Your task to perform on an android device: clear history in the chrome app Image 0: 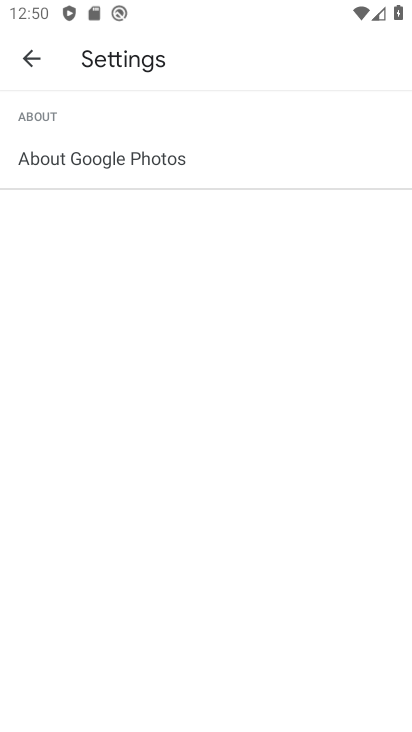
Step 0: press back button
Your task to perform on an android device: clear history in the chrome app Image 1: 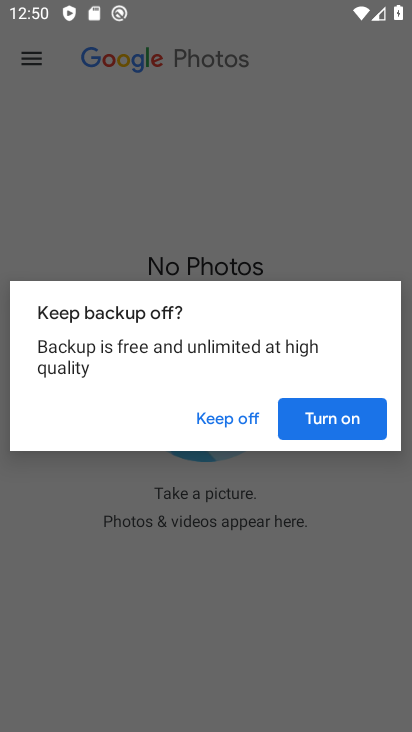
Step 1: press home button
Your task to perform on an android device: clear history in the chrome app Image 2: 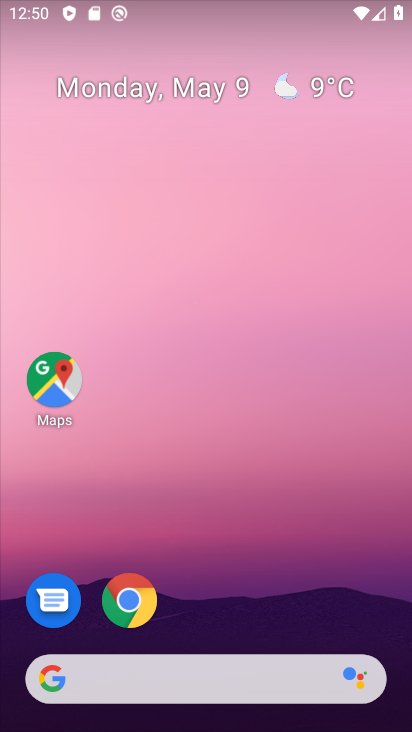
Step 2: drag from (208, 655) to (374, 103)
Your task to perform on an android device: clear history in the chrome app Image 3: 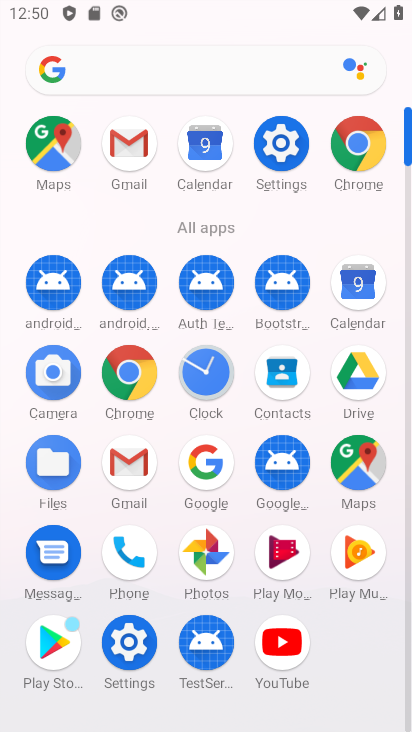
Step 3: click (142, 380)
Your task to perform on an android device: clear history in the chrome app Image 4: 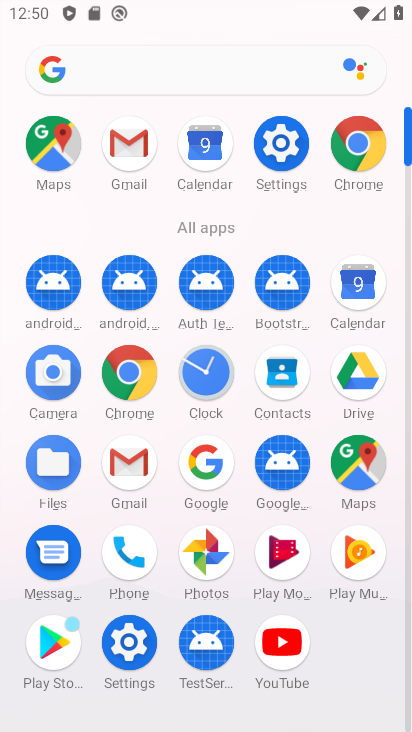
Step 4: click (142, 380)
Your task to perform on an android device: clear history in the chrome app Image 5: 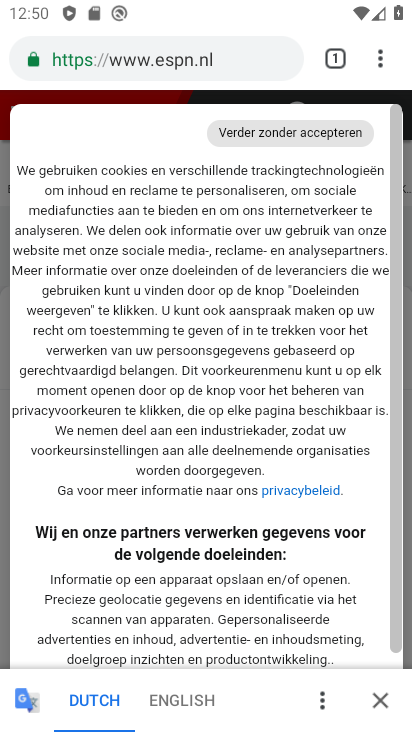
Step 5: drag from (380, 62) to (298, 332)
Your task to perform on an android device: clear history in the chrome app Image 6: 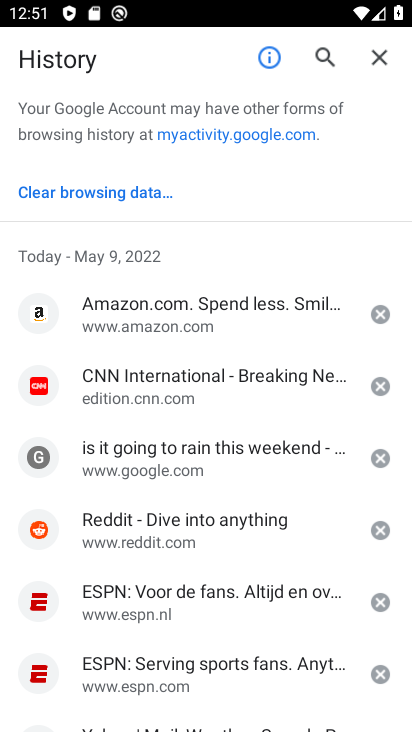
Step 6: click (80, 192)
Your task to perform on an android device: clear history in the chrome app Image 7: 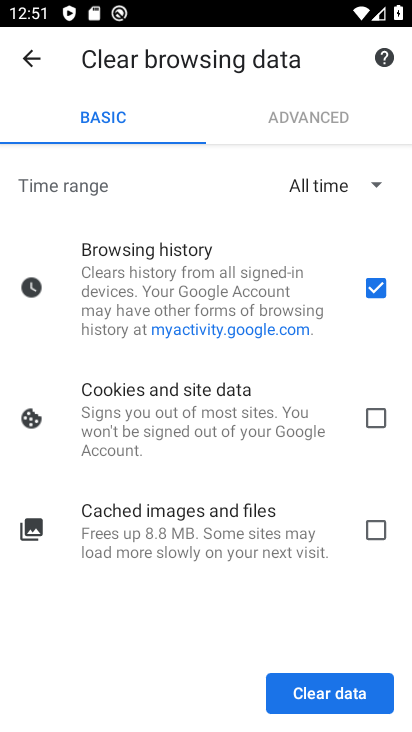
Step 7: click (326, 691)
Your task to perform on an android device: clear history in the chrome app Image 8: 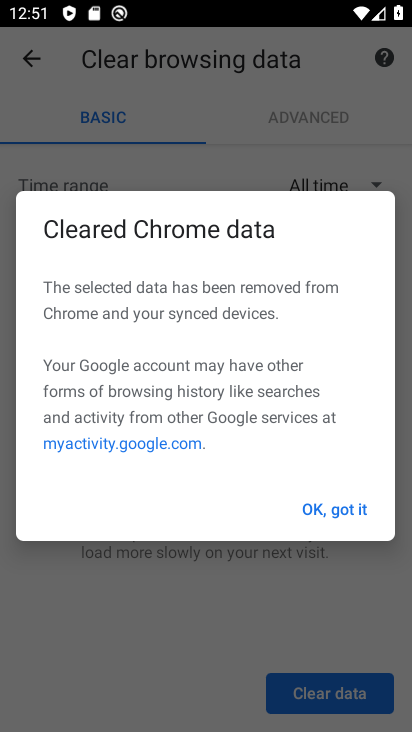
Step 8: click (332, 512)
Your task to perform on an android device: clear history in the chrome app Image 9: 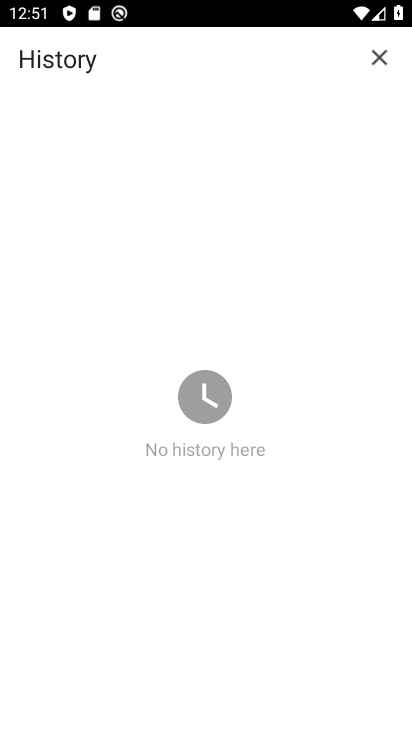
Step 9: task complete